Your task to perform on an android device: Open sound settings Image 0: 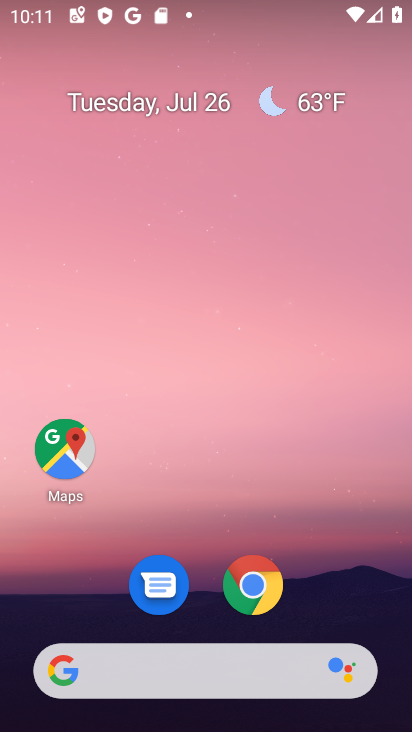
Step 0: drag from (325, 558) to (310, 89)
Your task to perform on an android device: Open sound settings Image 1: 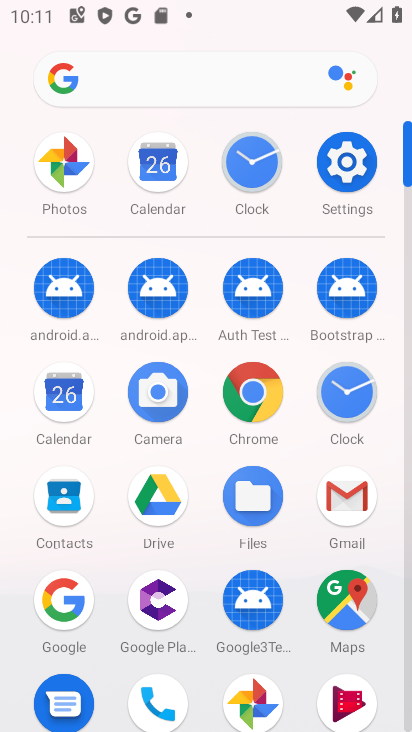
Step 1: click (336, 155)
Your task to perform on an android device: Open sound settings Image 2: 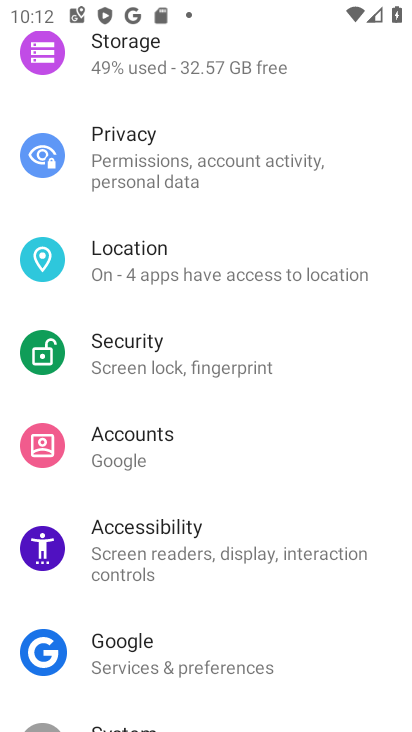
Step 2: drag from (247, 187) to (238, 446)
Your task to perform on an android device: Open sound settings Image 3: 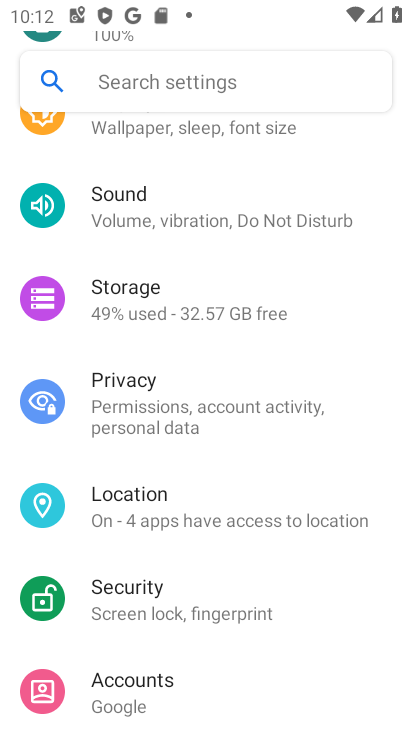
Step 3: click (217, 222)
Your task to perform on an android device: Open sound settings Image 4: 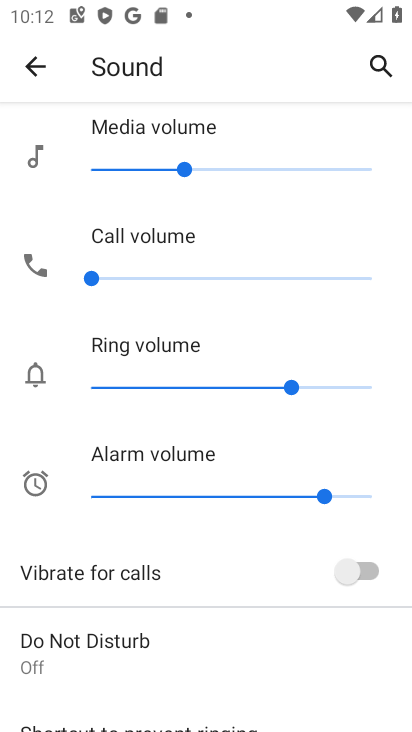
Step 4: task complete